Your task to perform on an android device: Open the map Image 0: 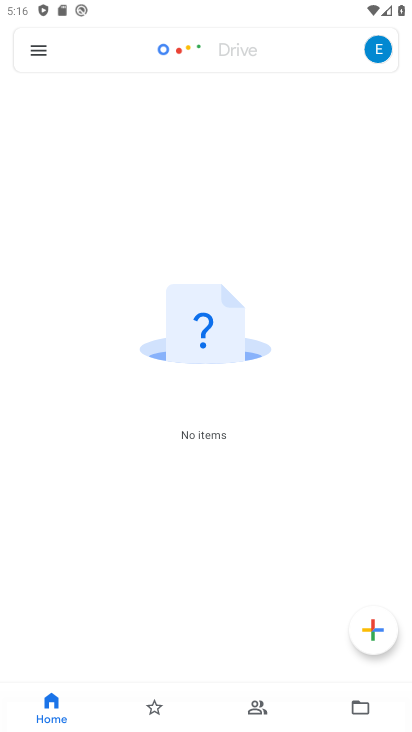
Step 0: drag from (203, 633) to (215, 72)
Your task to perform on an android device: Open the map Image 1: 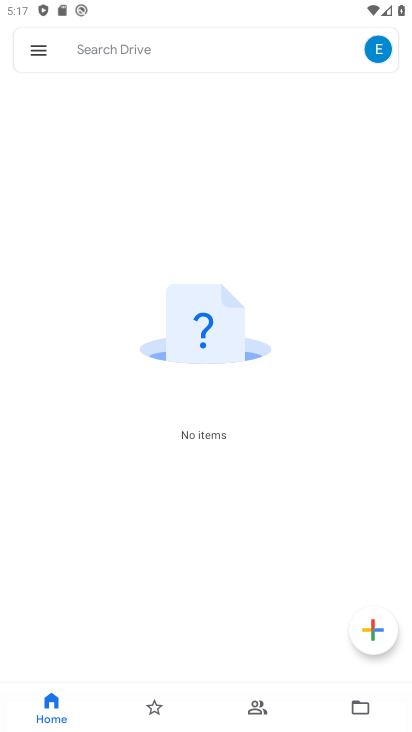
Step 1: press home button
Your task to perform on an android device: Open the map Image 2: 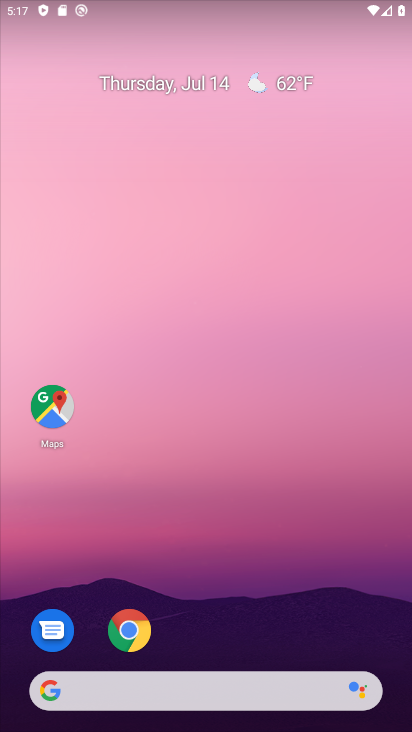
Step 2: click (50, 390)
Your task to perform on an android device: Open the map Image 3: 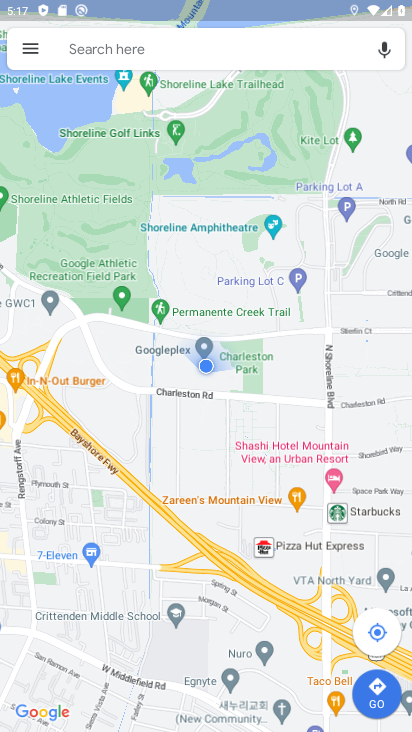
Step 3: task complete